Your task to perform on an android device: move a message to another label in the gmail app Image 0: 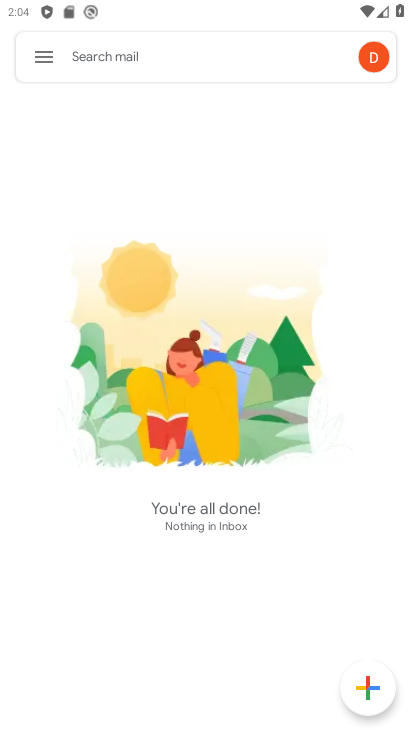
Step 0: click (44, 58)
Your task to perform on an android device: move a message to another label in the gmail app Image 1: 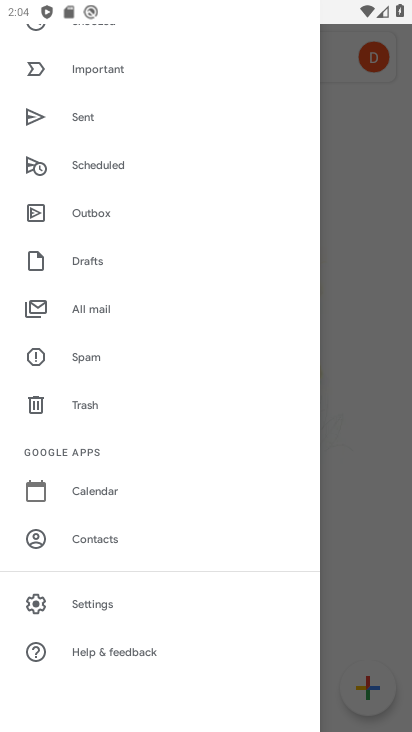
Step 1: click (80, 302)
Your task to perform on an android device: move a message to another label in the gmail app Image 2: 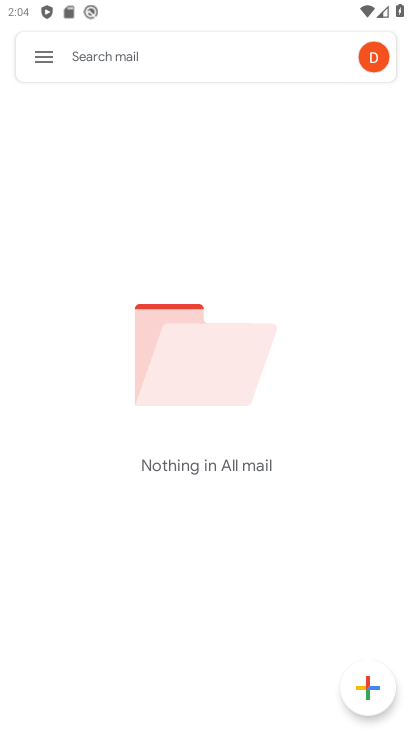
Step 2: task complete